Your task to perform on an android device: Open the web browser Image 0: 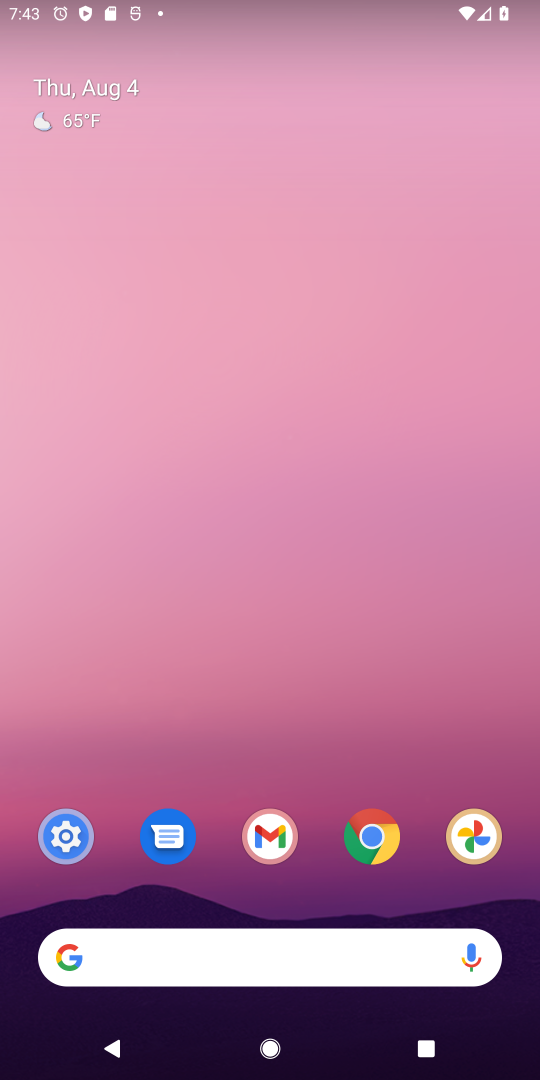
Step 0: click (374, 836)
Your task to perform on an android device: Open the web browser Image 1: 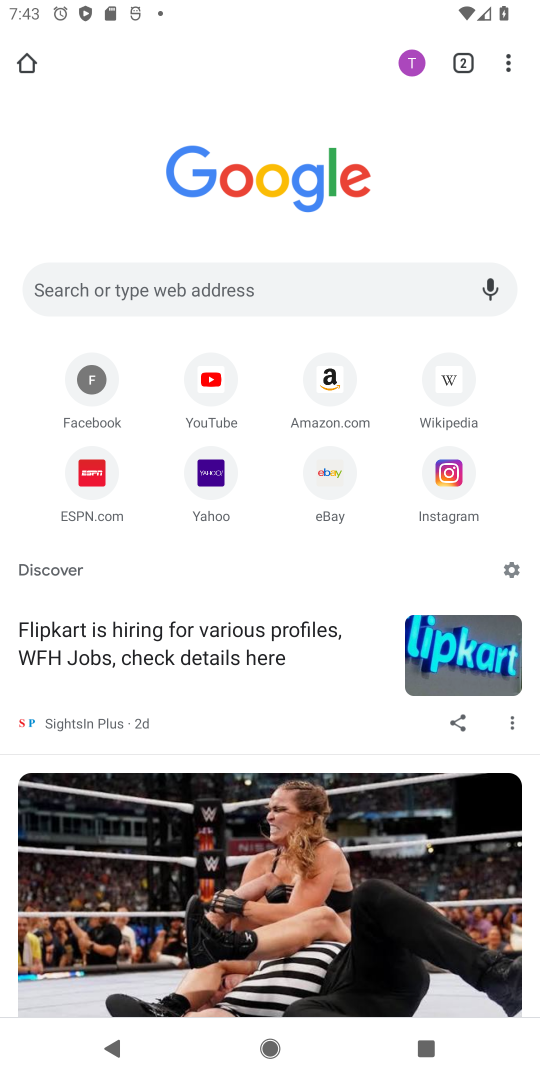
Step 1: task complete